Your task to perform on an android device: Open privacy settings Image 0: 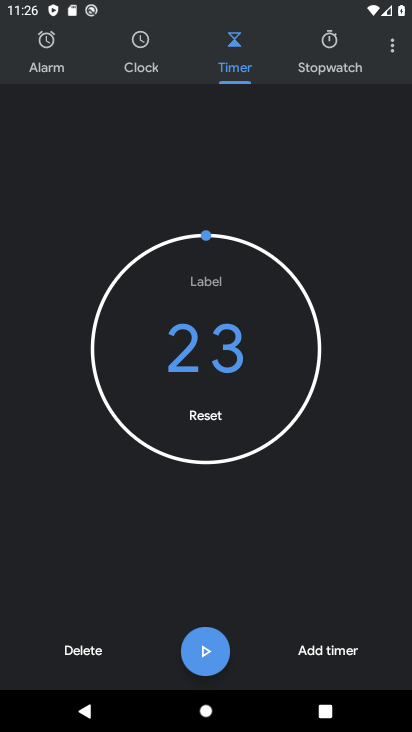
Step 0: drag from (294, 591) to (321, 379)
Your task to perform on an android device: Open privacy settings Image 1: 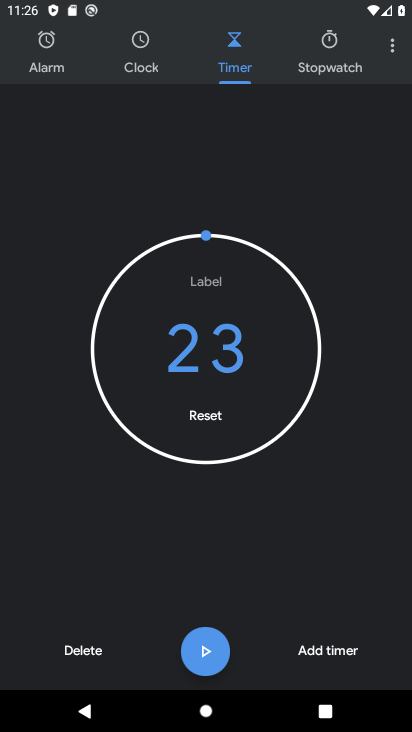
Step 1: drag from (250, 583) to (327, 356)
Your task to perform on an android device: Open privacy settings Image 2: 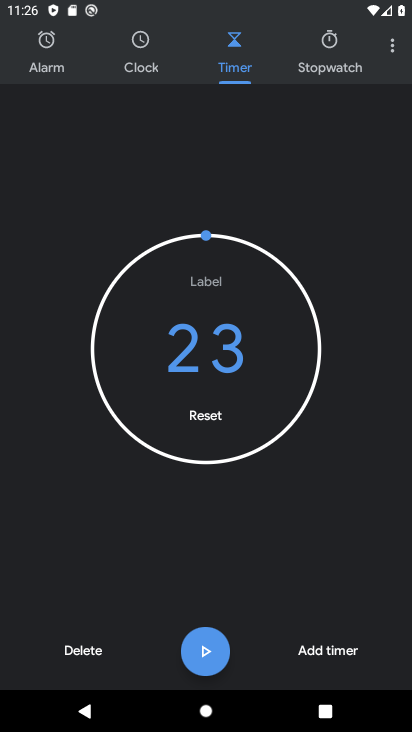
Step 2: click (390, 47)
Your task to perform on an android device: Open privacy settings Image 3: 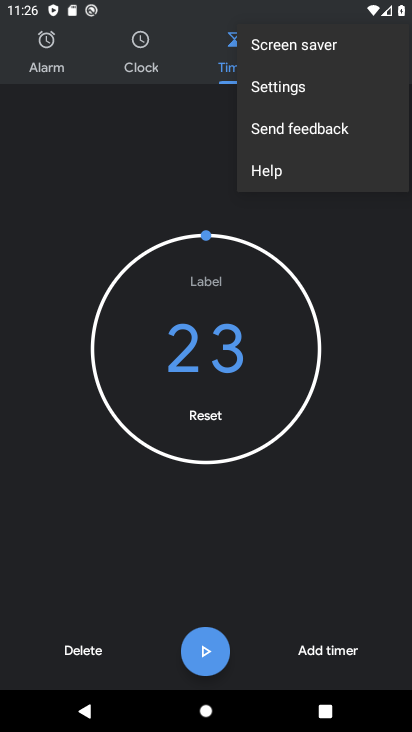
Step 3: click (314, 85)
Your task to perform on an android device: Open privacy settings Image 4: 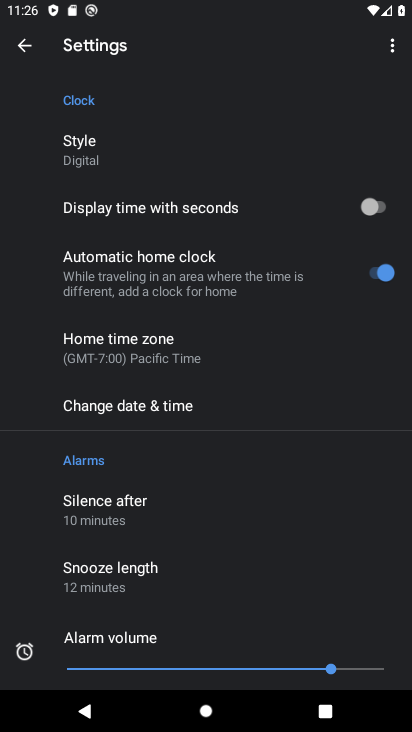
Step 4: drag from (245, 551) to (314, 303)
Your task to perform on an android device: Open privacy settings Image 5: 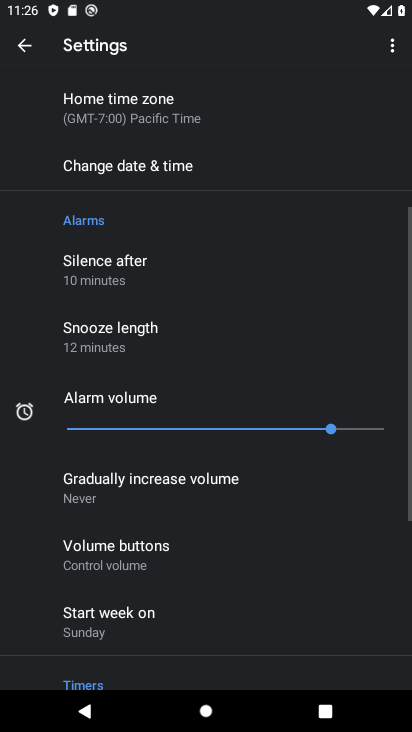
Step 5: drag from (298, 292) to (277, 696)
Your task to perform on an android device: Open privacy settings Image 6: 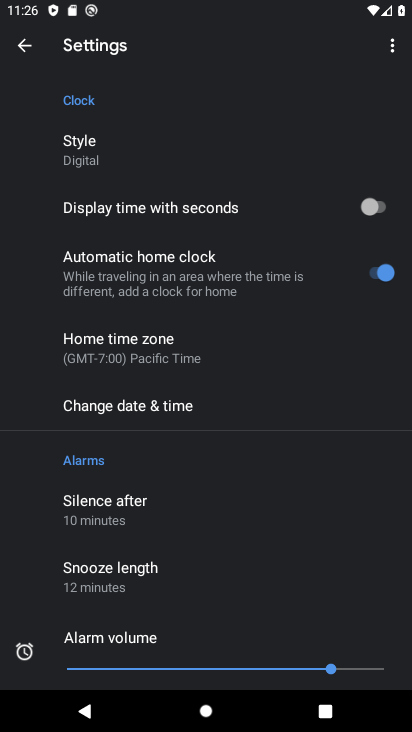
Step 6: drag from (190, 582) to (279, 235)
Your task to perform on an android device: Open privacy settings Image 7: 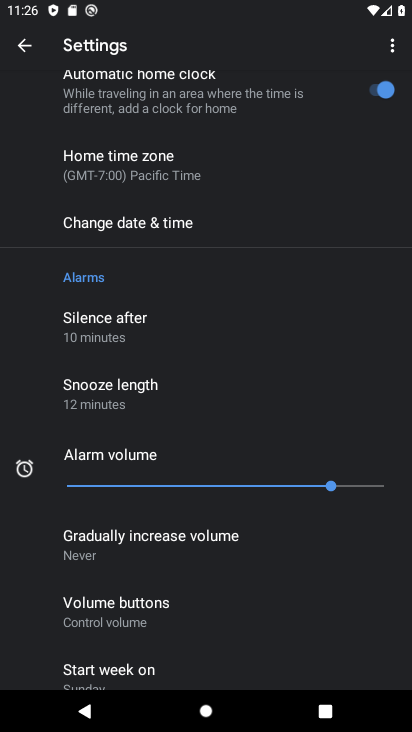
Step 7: drag from (210, 155) to (271, 718)
Your task to perform on an android device: Open privacy settings Image 8: 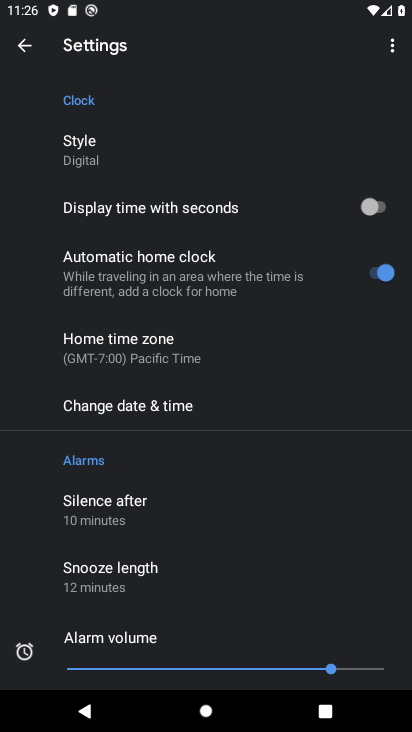
Step 8: drag from (199, 195) to (248, 713)
Your task to perform on an android device: Open privacy settings Image 9: 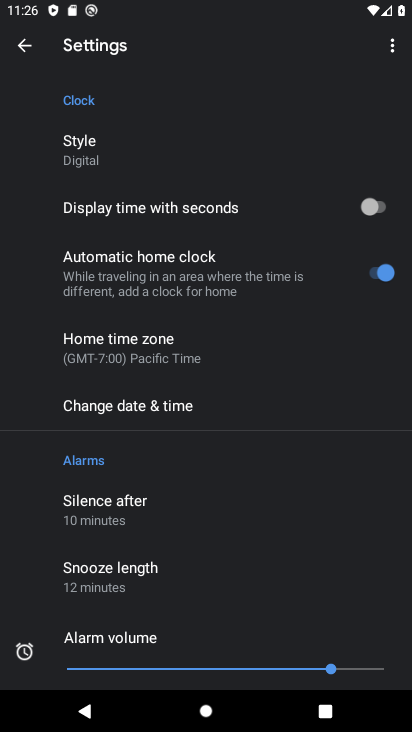
Step 9: click (20, 46)
Your task to perform on an android device: Open privacy settings Image 10: 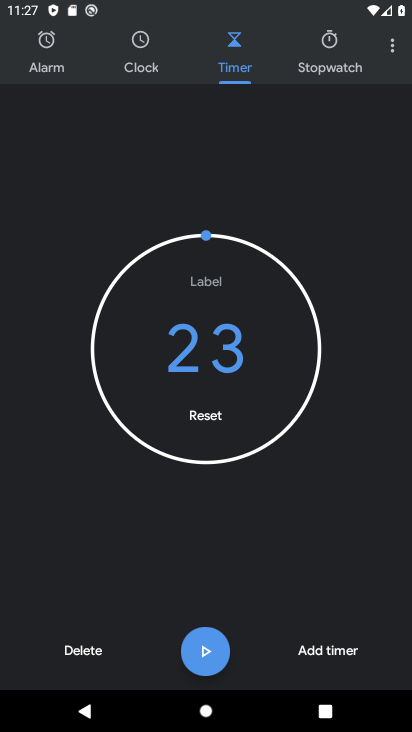
Step 10: press home button
Your task to perform on an android device: Open privacy settings Image 11: 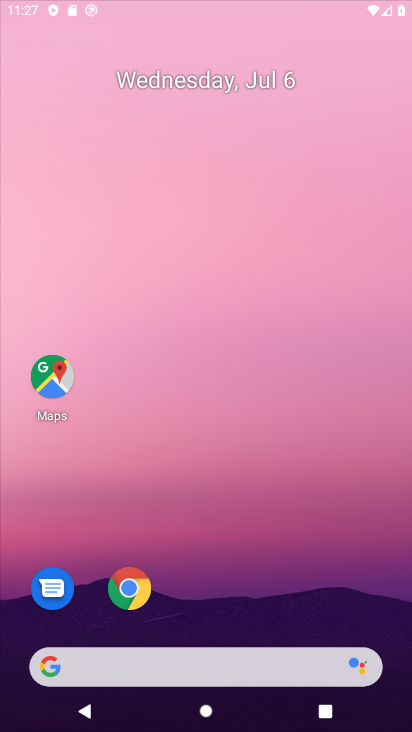
Step 11: drag from (195, 574) to (336, 94)
Your task to perform on an android device: Open privacy settings Image 12: 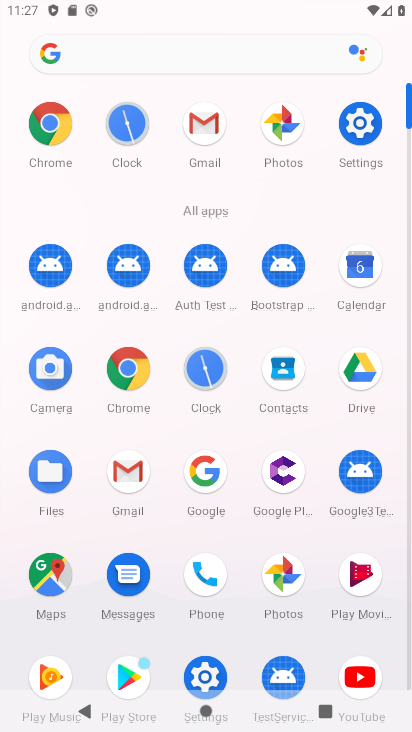
Step 12: click (357, 129)
Your task to perform on an android device: Open privacy settings Image 13: 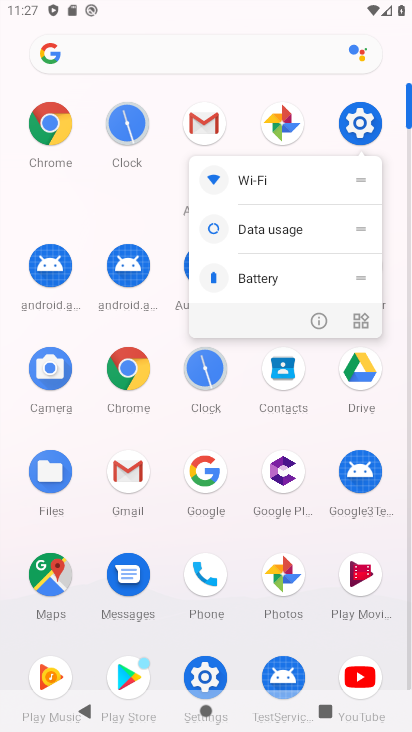
Step 13: click (317, 322)
Your task to perform on an android device: Open privacy settings Image 14: 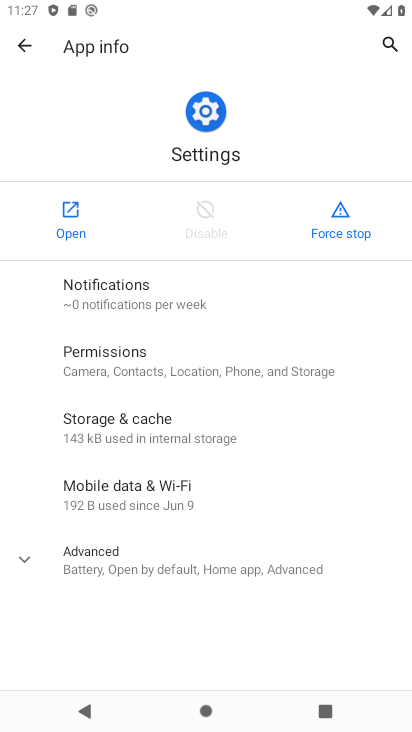
Step 14: click (73, 196)
Your task to perform on an android device: Open privacy settings Image 15: 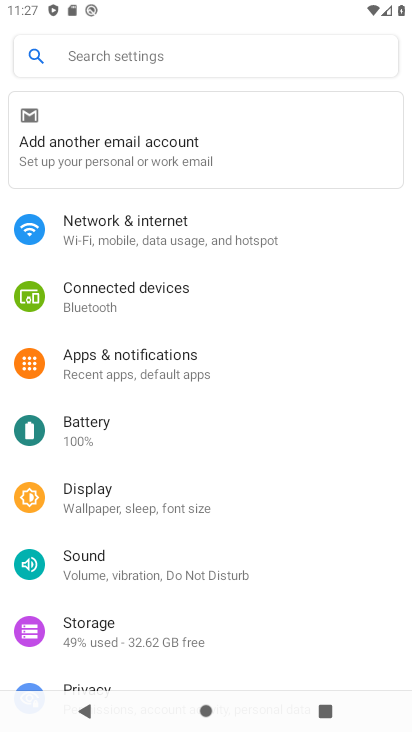
Step 15: drag from (204, 560) to (295, 291)
Your task to perform on an android device: Open privacy settings Image 16: 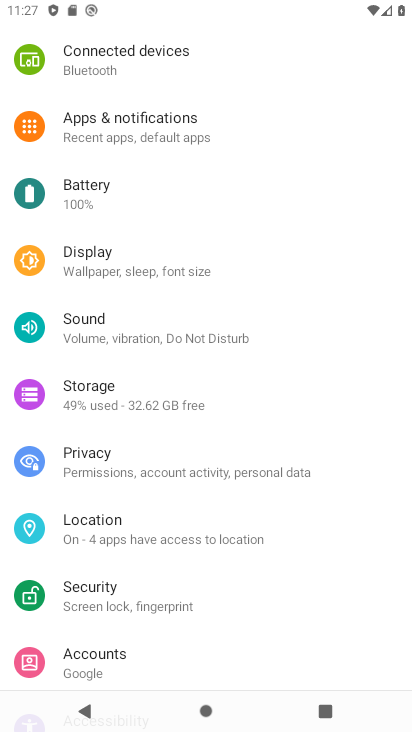
Step 16: click (112, 452)
Your task to perform on an android device: Open privacy settings Image 17: 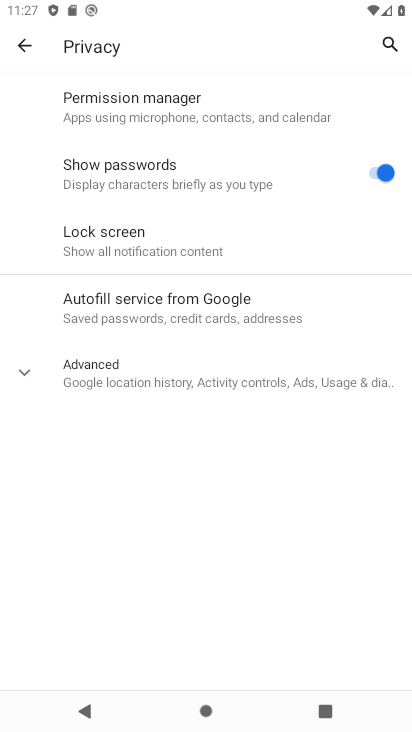
Step 17: task complete